Your task to perform on an android device: Show me recent news Image 0: 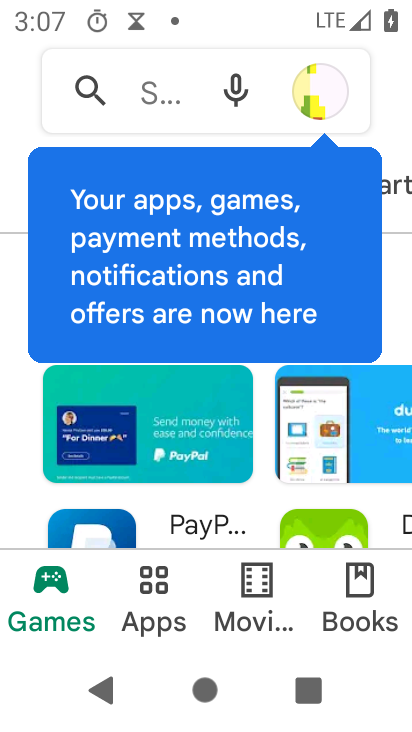
Step 0: press home button
Your task to perform on an android device: Show me recent news Image 1: 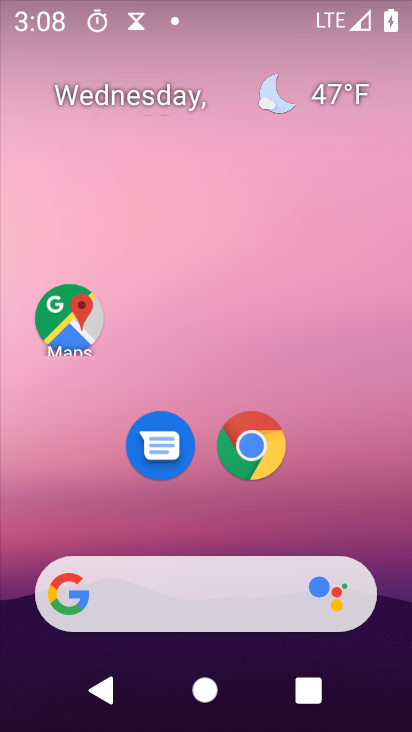
Step 1: task complete